Your task to perform on an android device: Open the Play Movies app and select the watchlist tab. Image 0: 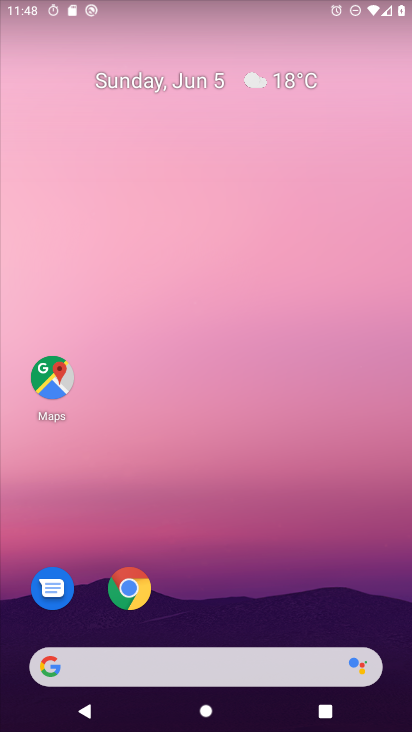
Step 0: drag from (341, 606) to (347, 278)
Your task to perform on an android device: Open the Play Movies app and select the watchlist tab. Image 1: 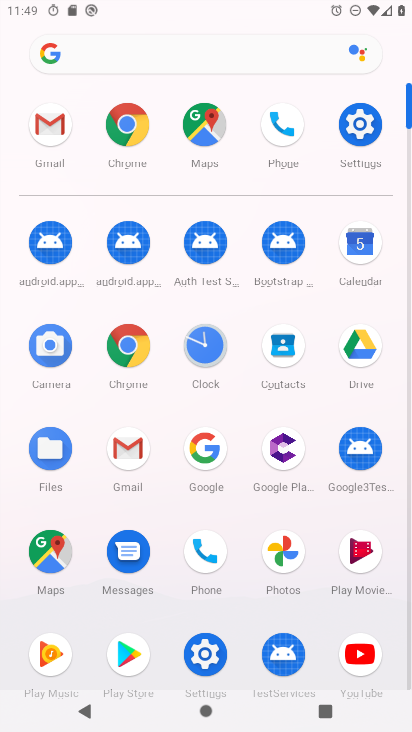
Step 1: click (339, 552)
Your task to perform on an android device: Open the Play Movies app and select the watchlist tab. Image 2: 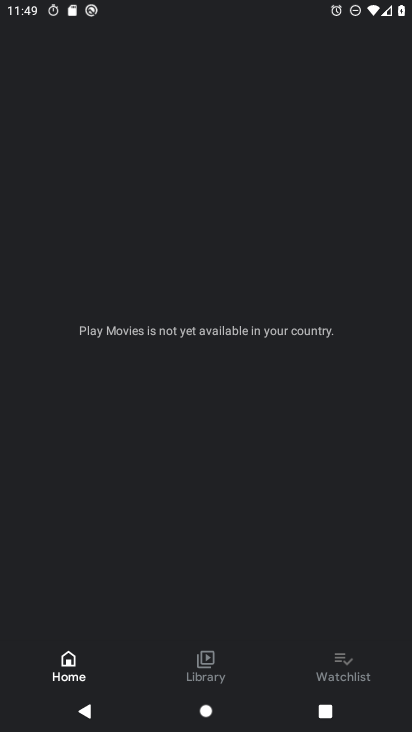
Step 2: click (353, 683)
Your task to perform on an android device: Open the Play Movies app and select the watchlist tab. Image 3: 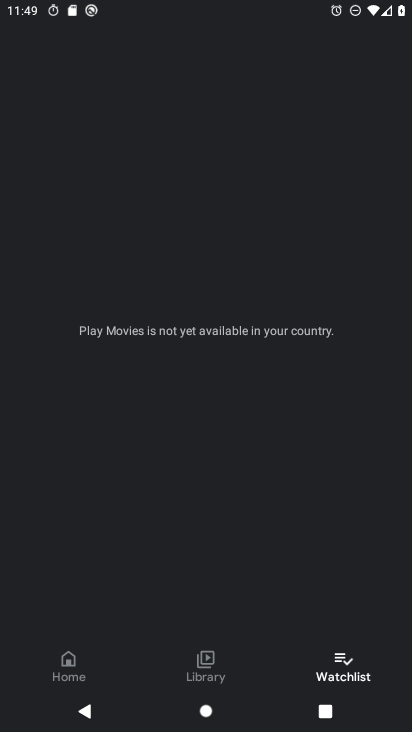
Step 3: task complete